Your task to perform on an android device: Open battery settings Image 0: 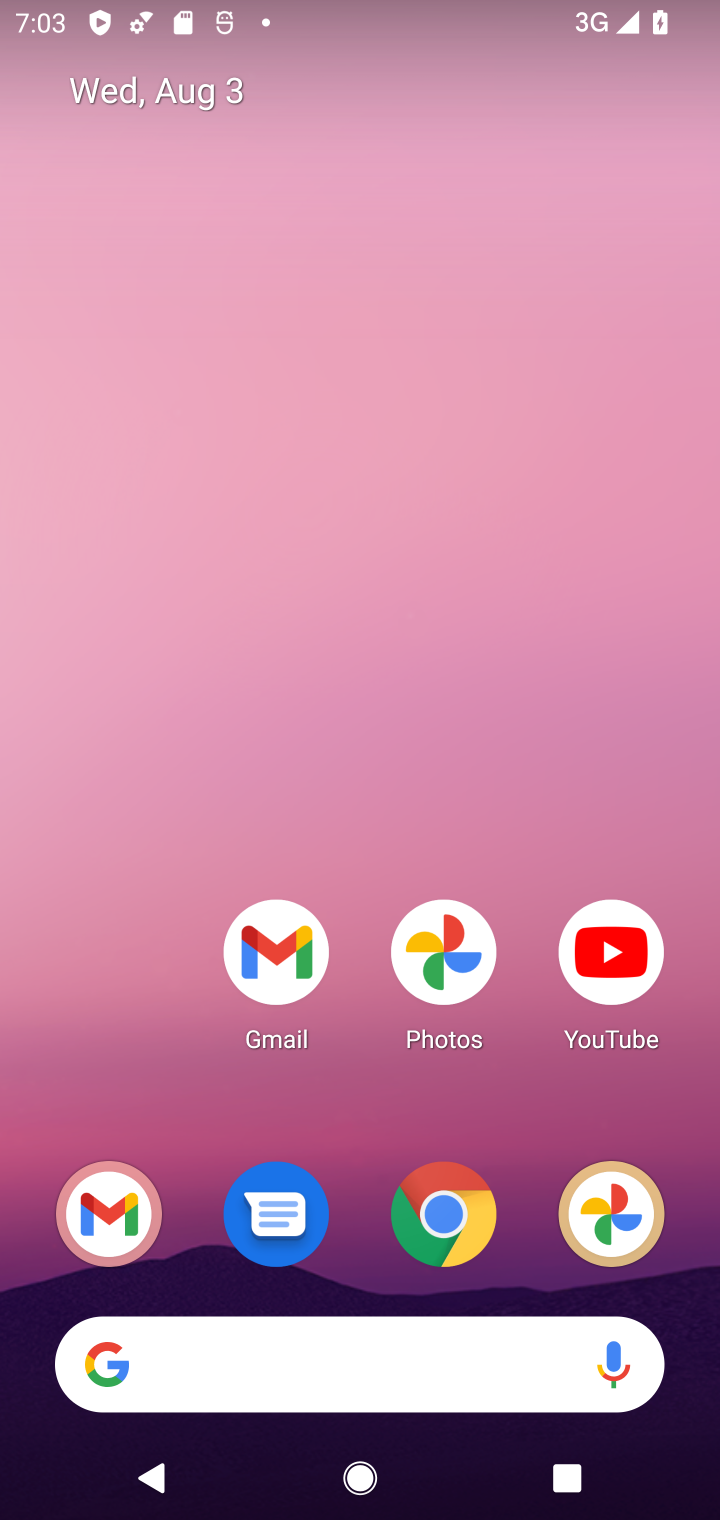
Step 0: drag from (78, 1079) to (60, 15)
Your task to perform on an android device: Open battery settings Image 1: 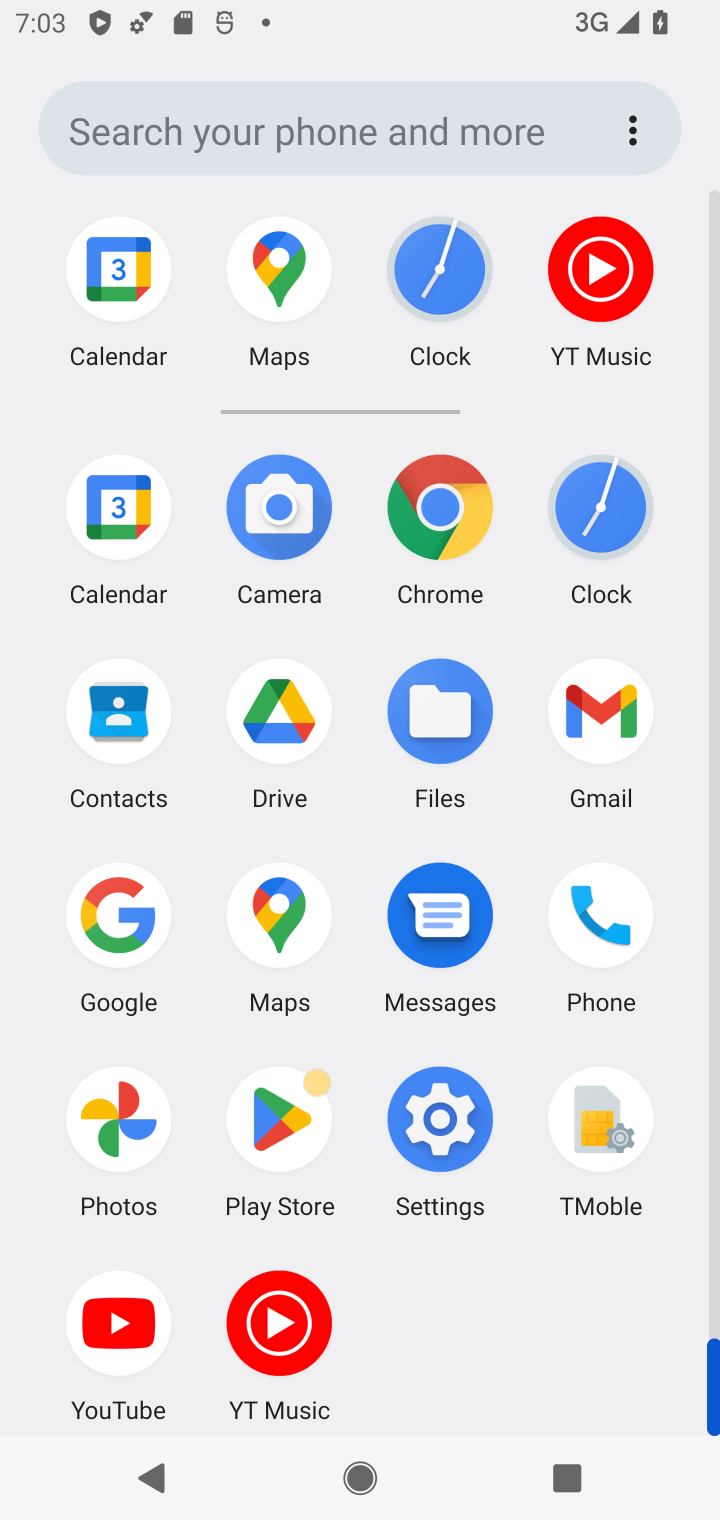
Step 1: click (438, 1122)
Your task to perform on an android device: Open battery settings Image 2: 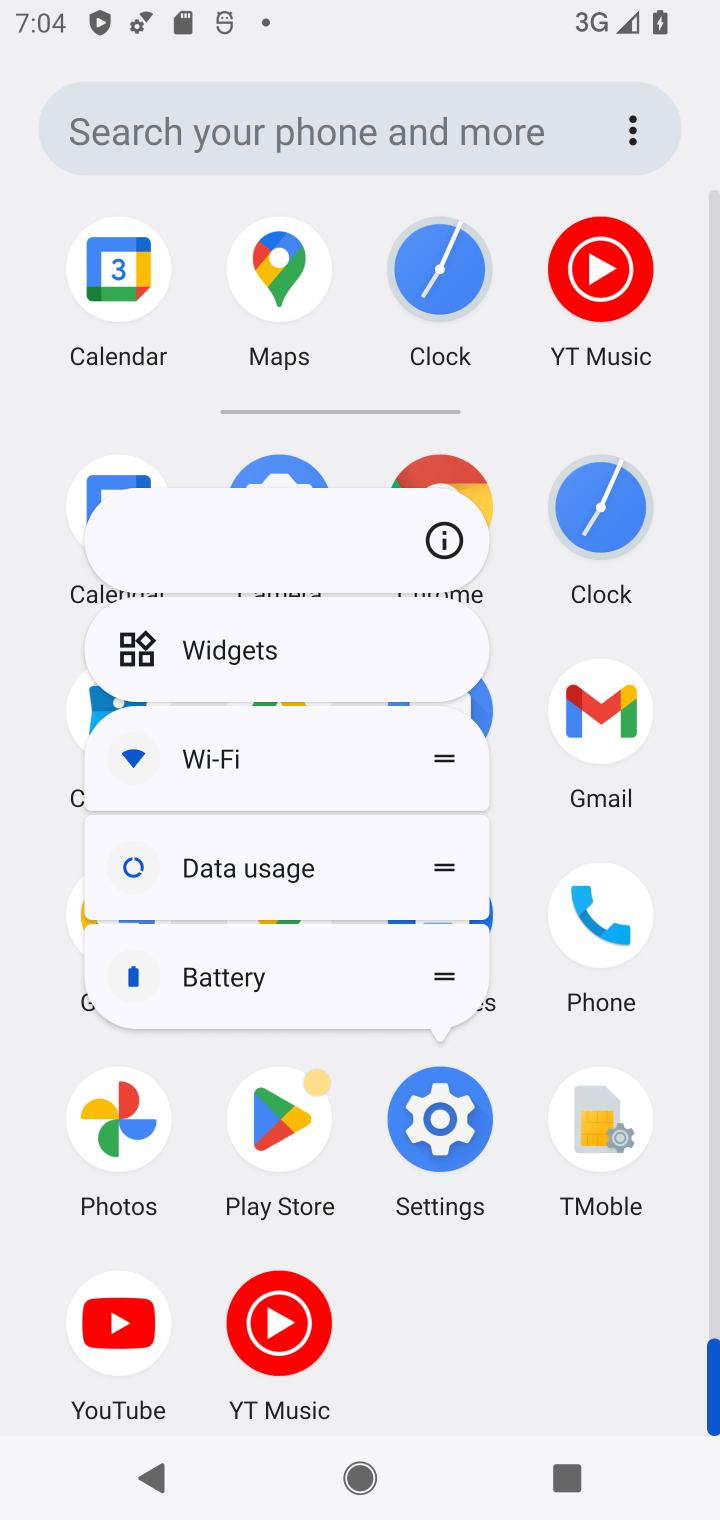
Step 2: click (453, 1113)
Your task to perform on an android device: Open battery settings Image 3: 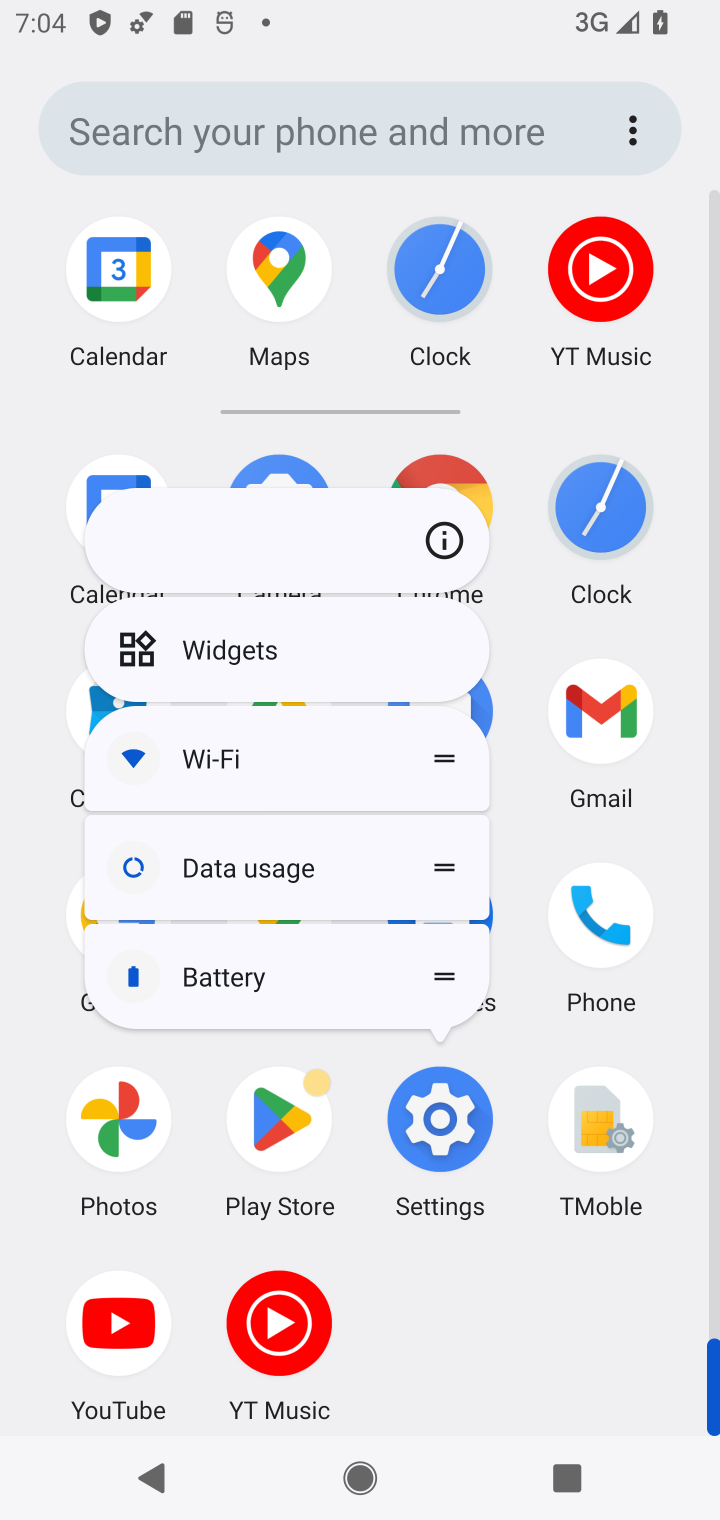
Step 3: click (453, 1111)
Your task to perform on an android device: Open battery settings Image 4: 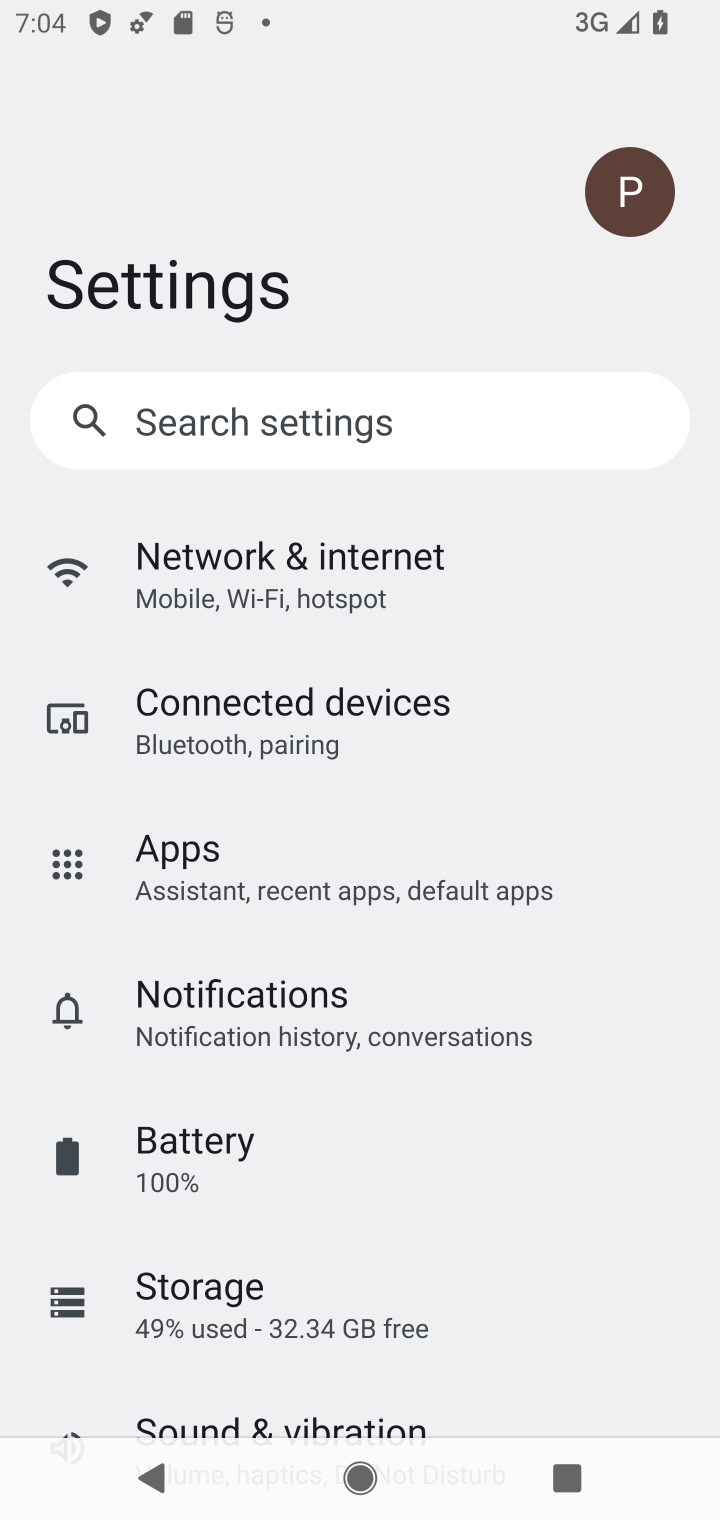
Step 4: click (252, 1155)
Your task to perform on an android device: Open battery settings Image 5: 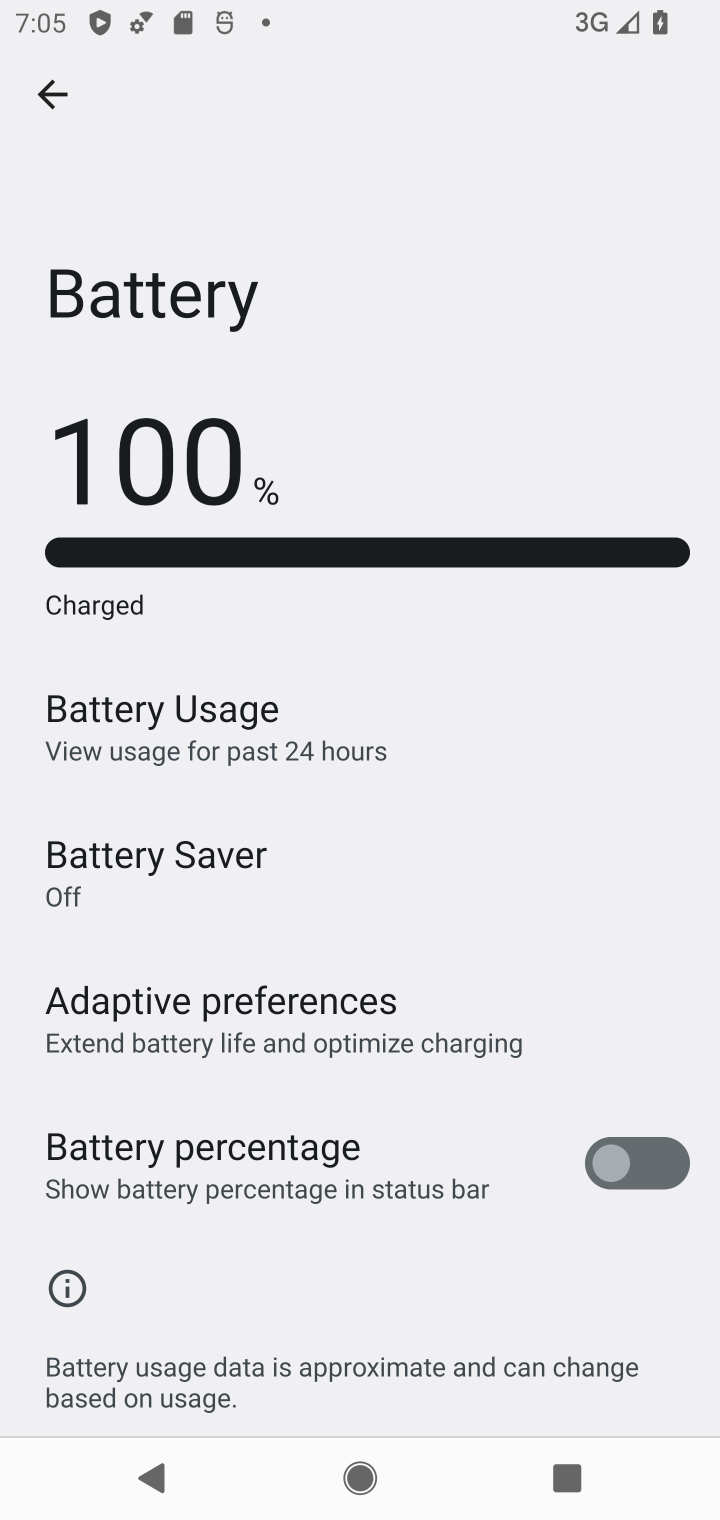
Step 5: task complete